Your task to perform on an android device: Set the phone to "Do not disturb". Image 0: 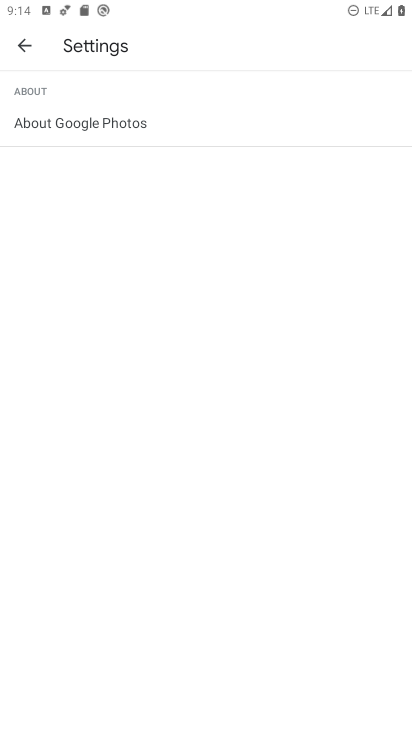
Step 0: press home button
Your task to perform on an android device: Set the phone to "Do not disturb". Image 1: 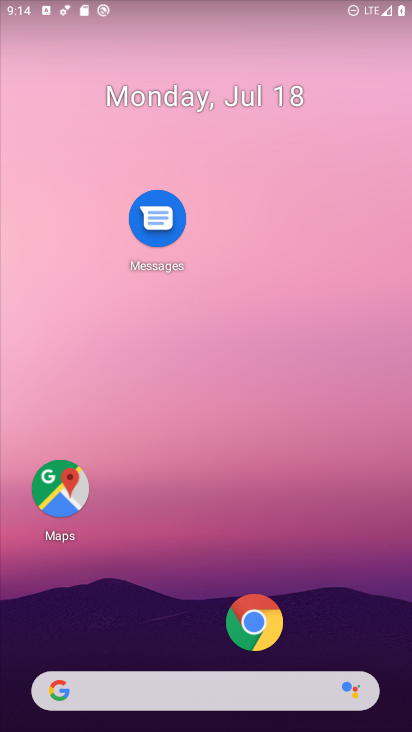
Step 1: task complete